Your task to perform on an android device: turn smart compose on in the gmail app Image 0: 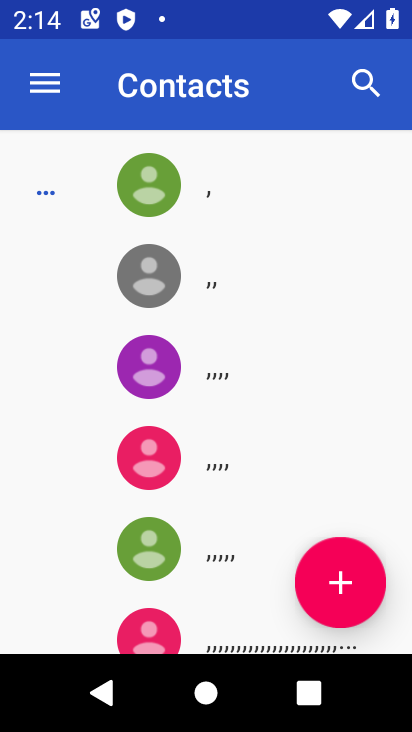
Step 0: press back button
Your task to perform on an android device: turn smart compose on in the gmail app Image 1: 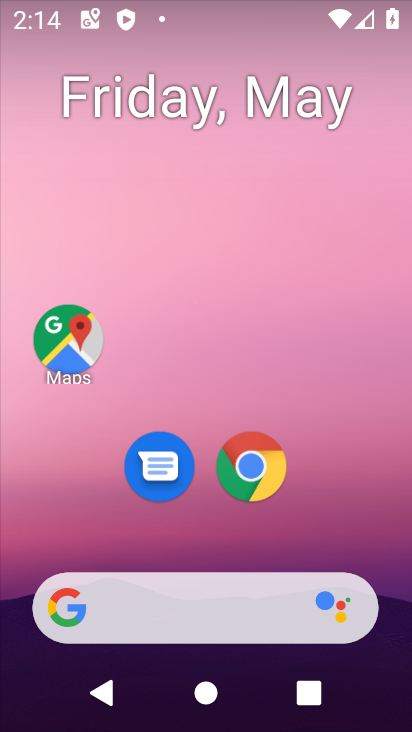
Step 1: drag from (147, 553) to (249, 151)
Your task to perform on an android device: turn smart compose on in the gmail app Image 2: 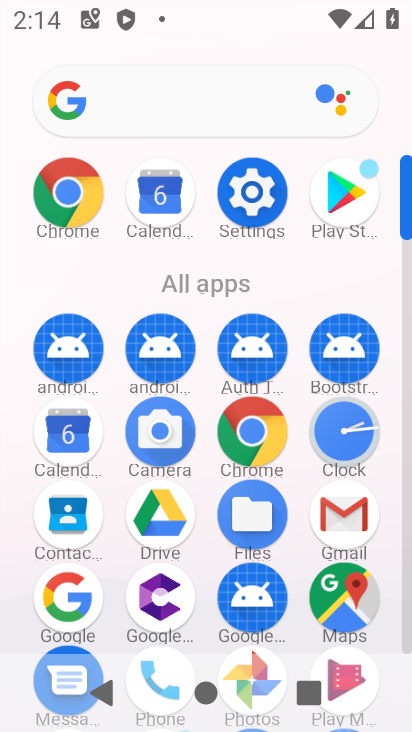
Step 2: click (331, 516)
Your task to perform on an android device: turn smart compose on in the gmail app Image 3: 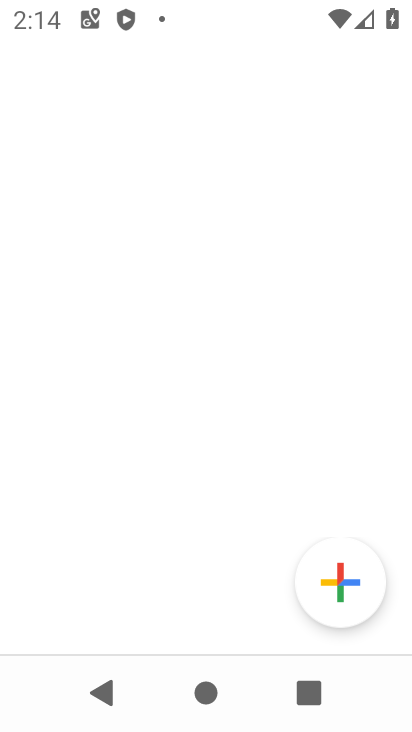
Step 3: drag from (193, 180) to (196, 514)
Your task to perform on an android device: turn smart compose on in the gmail app Image 4: 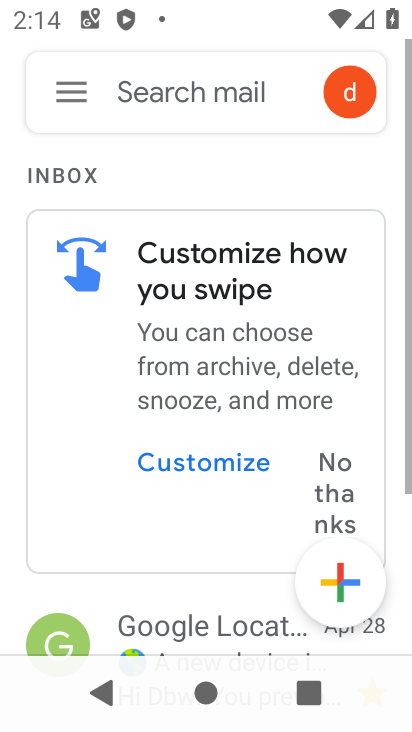
Step 4: click (73, 87)
Your task to perform on an android device: turn smart compose on in the gmail app Image 5: 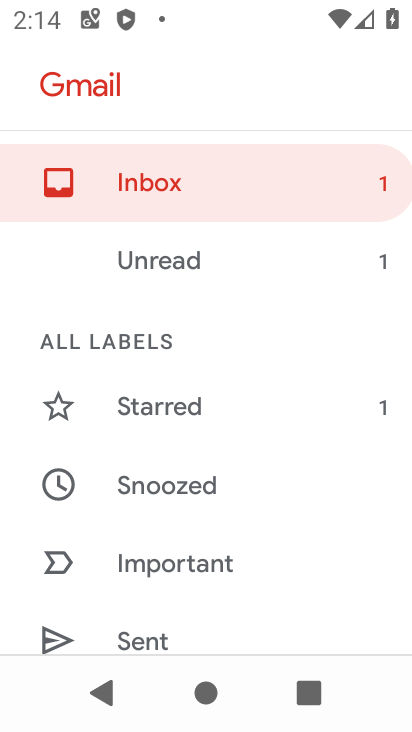
Step 5: drag from (134, 581) to (215, 159)
Your task to perform on an android device: turn smart compose on in the gmail app Image 6: 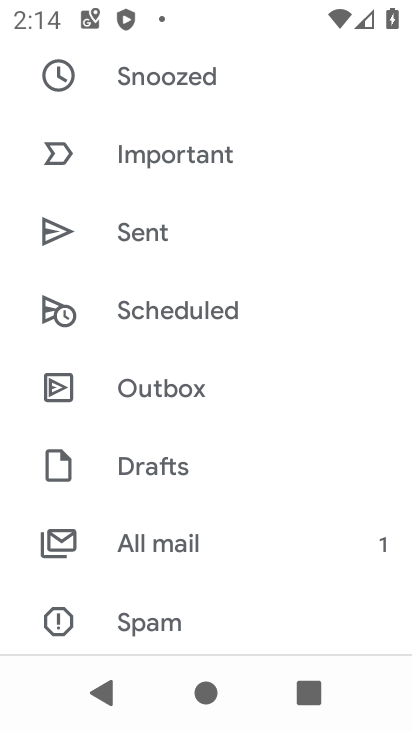
Step 6: drag from (159, 608) to (283, 132)
Your task to perform on an android device: turn smart compose on in the gmail app Image 7: 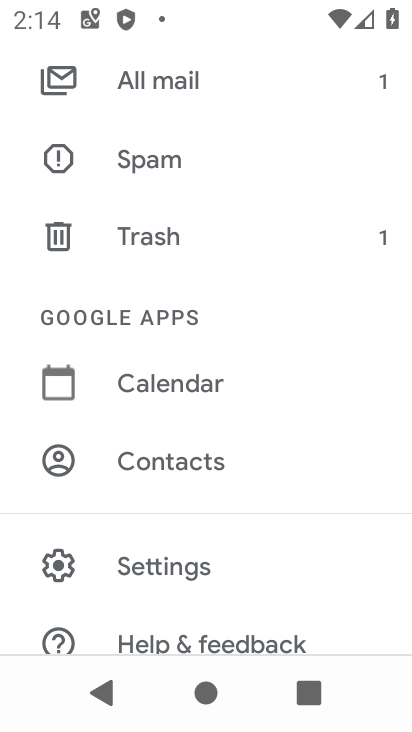
Step 7: click (169, 561)
Your task to perform on an android device: turn smart compose on in the gmail app Image 8: 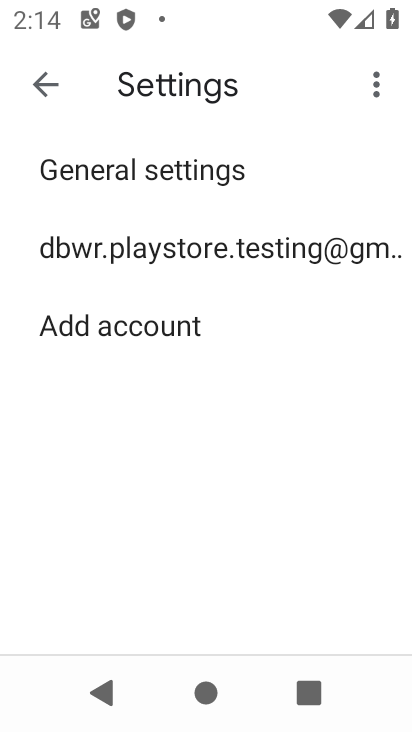
Step 8: click (167, 253)
Your task to perform on an android device: turn smart compose on in the gmail app Image 9: 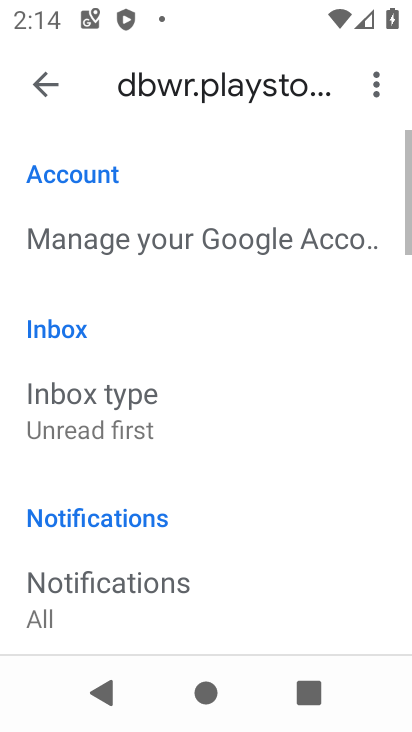
Step 9: task complete